Your task to perform on an android device: Is it going to rain this weekend? Image 0: 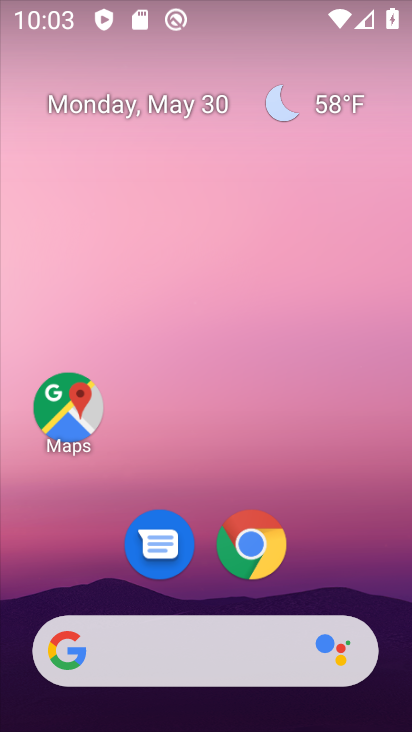
Step 0: drag from (325, 591) to (334, 43)
Your task to perform on an android device: Is it going to rain this weekend? Image 1: 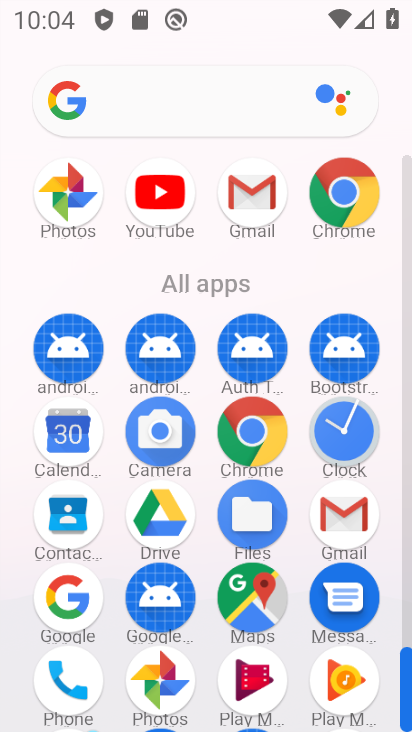
Step 1: click (160, 88)
Your task to perform on an android device: Is it going to rain this weekend? Image 2: 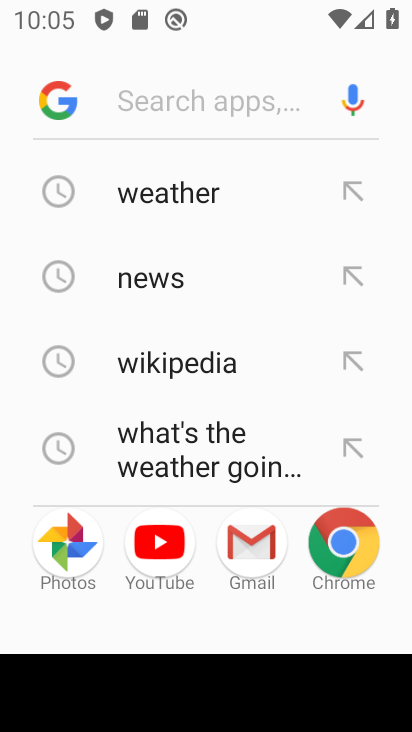
Step 2: click (175, 200)
Your task to perform on an android device: Is it going to rain this weekend? Image 3: 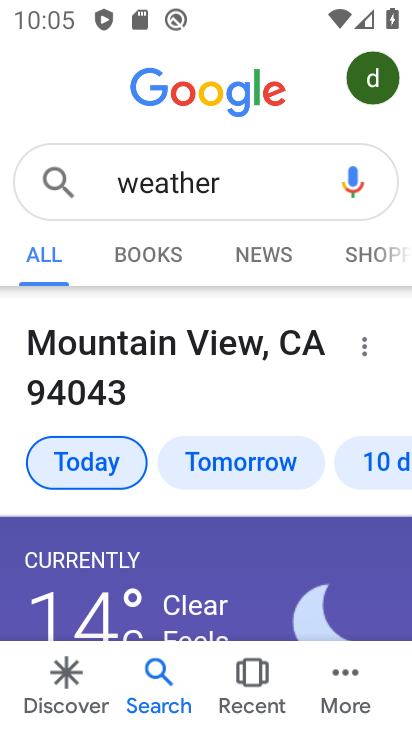
Step 3: task complete